Your task to perform on an android device: Open ESPN.com Image 0: 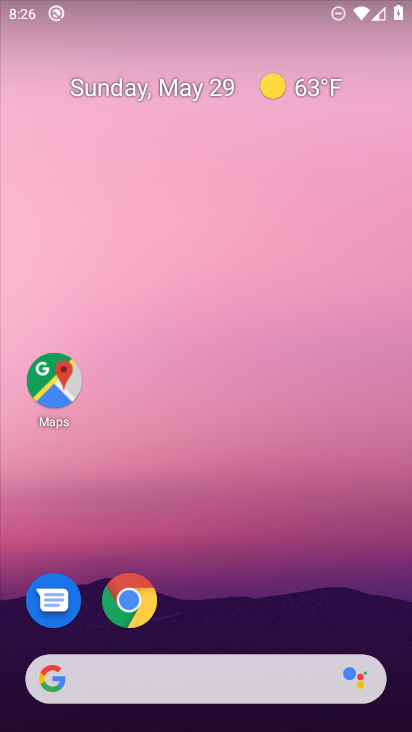
Step 0: click (132, 614)
Your task to perform on an android device: Open ESPN.com Image 1: 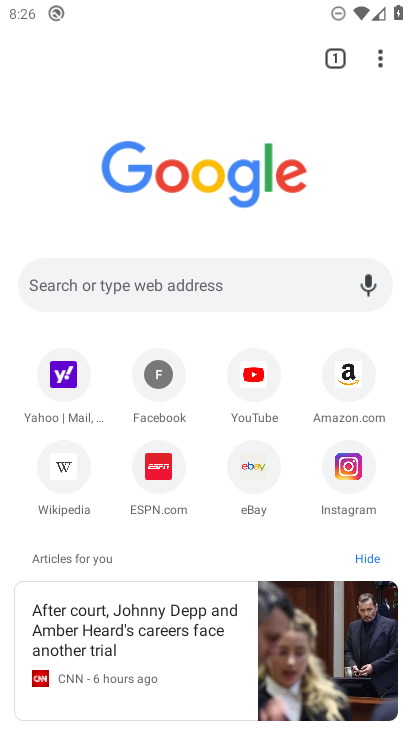
Step 1: click (157, 486)
Your task to perform on an android device: Open ESPN.com Image 2: 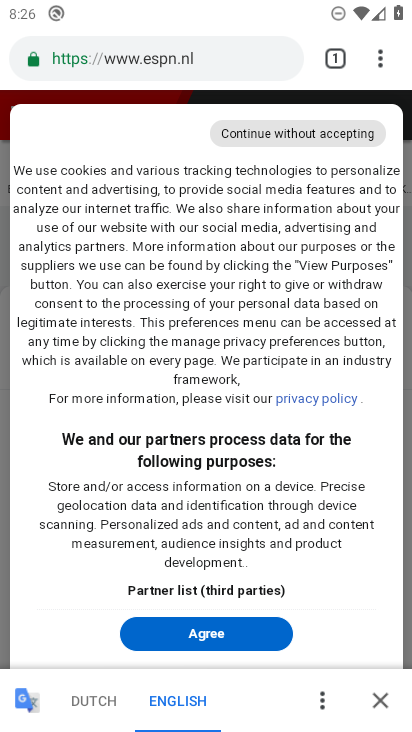
Step 2: click (265, 636)
Your task to perform on an android device: Open ESPN.com Image 3: 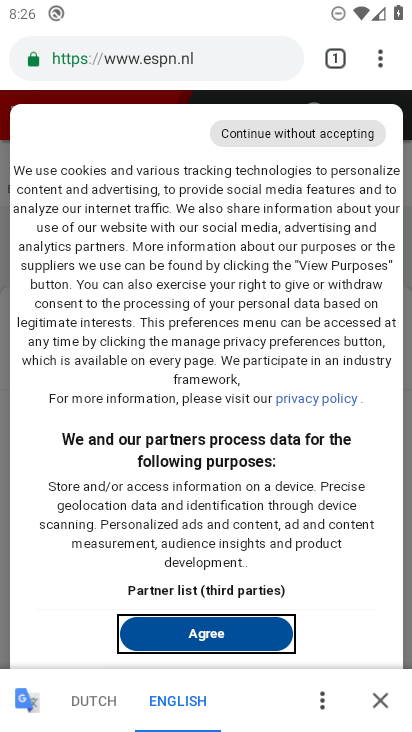
Step 3: click (232, 640)
Your task to perform on an android device: Open ESPN.com Image 4: 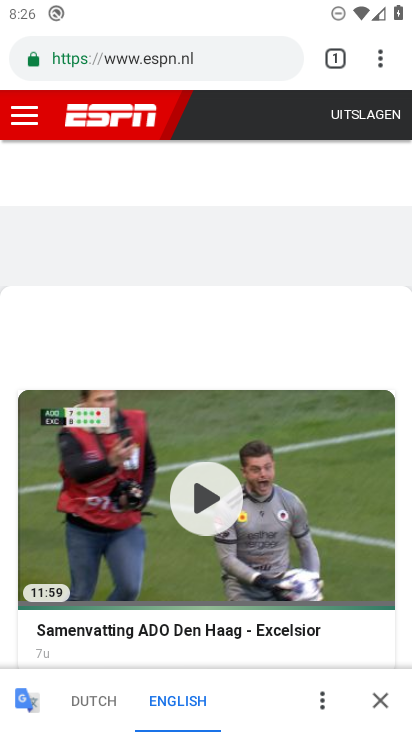
Step 4: task complete